Your task to perform on an android device: Empty the shopping cart on target. Add "jbl charge 4" to the cart on target, then select checkout. Image 0: 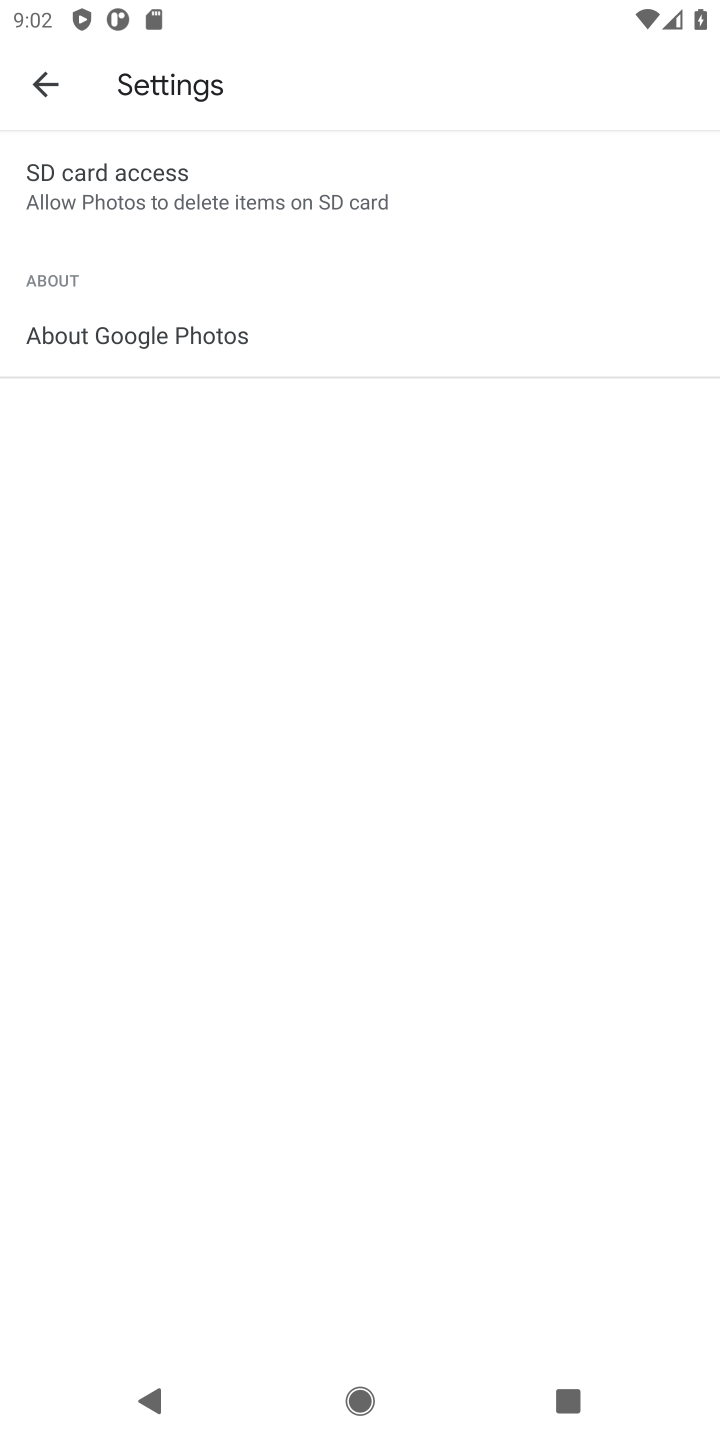
Step 0: press home button
Your task to perform on an android device: Empty the shopping cart on target. Add "jbl charge 4" to the cart on target, then select checkout. Image 1: 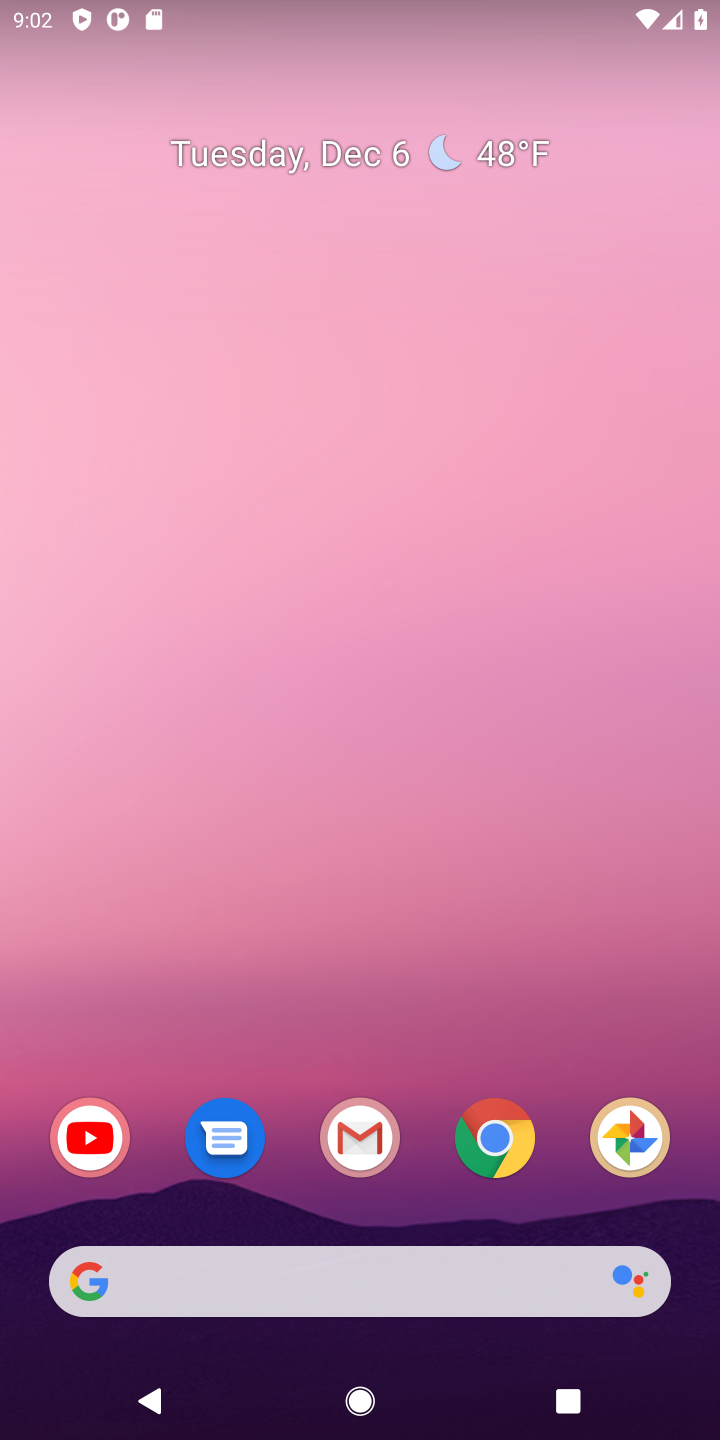
Step 1: click (494, 1148)
Your task to perform on an android device: Empty the shopping cart on target. Add "jbl charge 4" to the cart on target, then select checkout. Image 2: 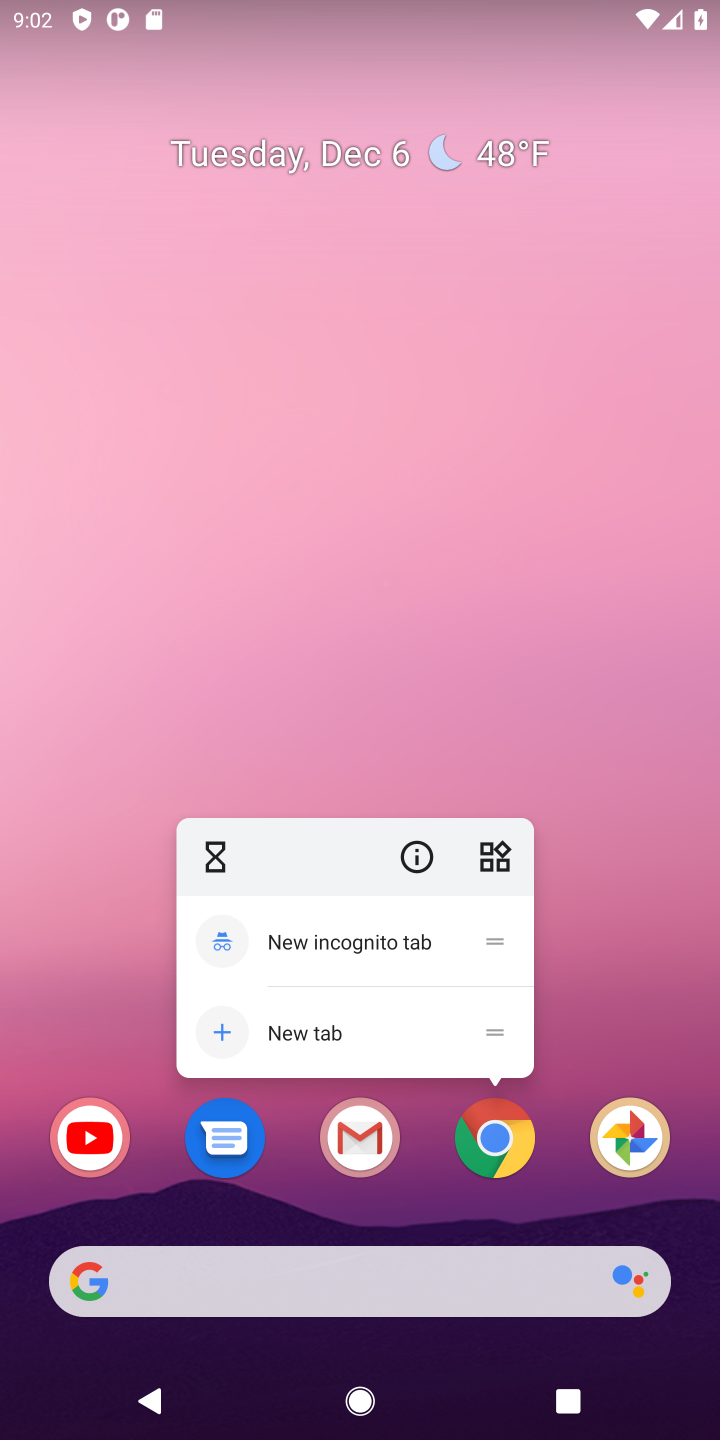
Step 2: click (494, 1159)
Your task to perform on an android device: Empty the shopping cart on target. Add "jbl charge 4" to the cart on target, then select checkout. Image 3: 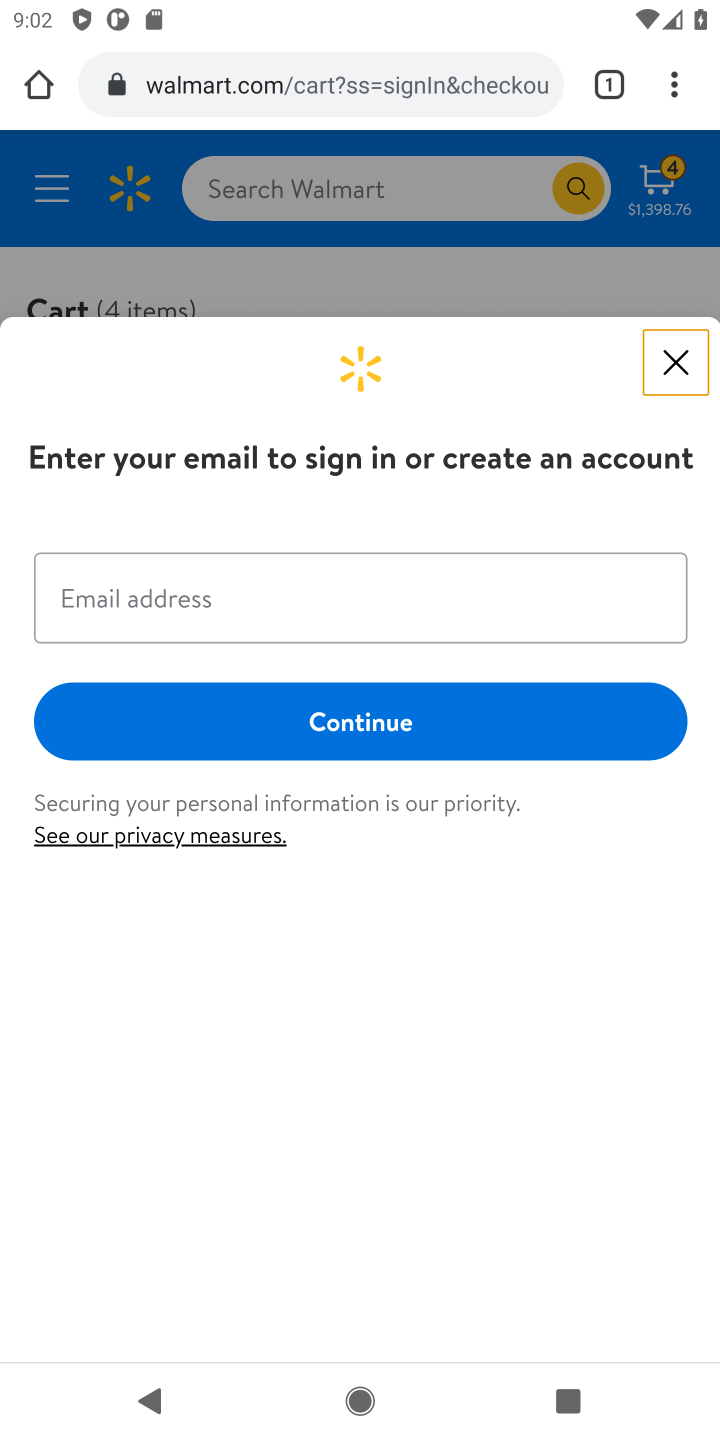
Step 3: click (309, 90)
Your task to perform on an android device: Empty the shopping cart on target. Add "jbl charge 4" to the cart on target, then select checkout. Image 4: 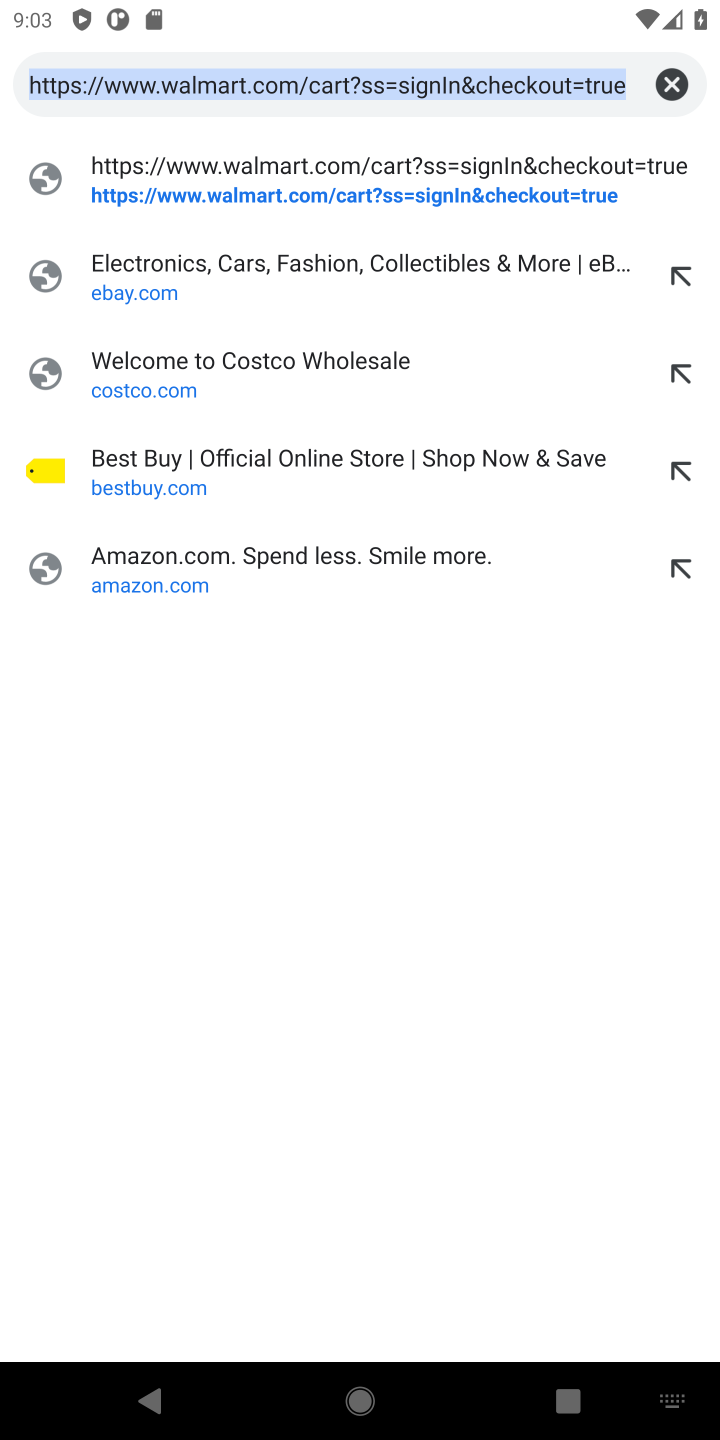
Step 4: type "target.com"
Your task to perform on an android device: Empty the shopping cart on target. Add "jbl charge 4" to the cart on target, then select checkout. Image 5: 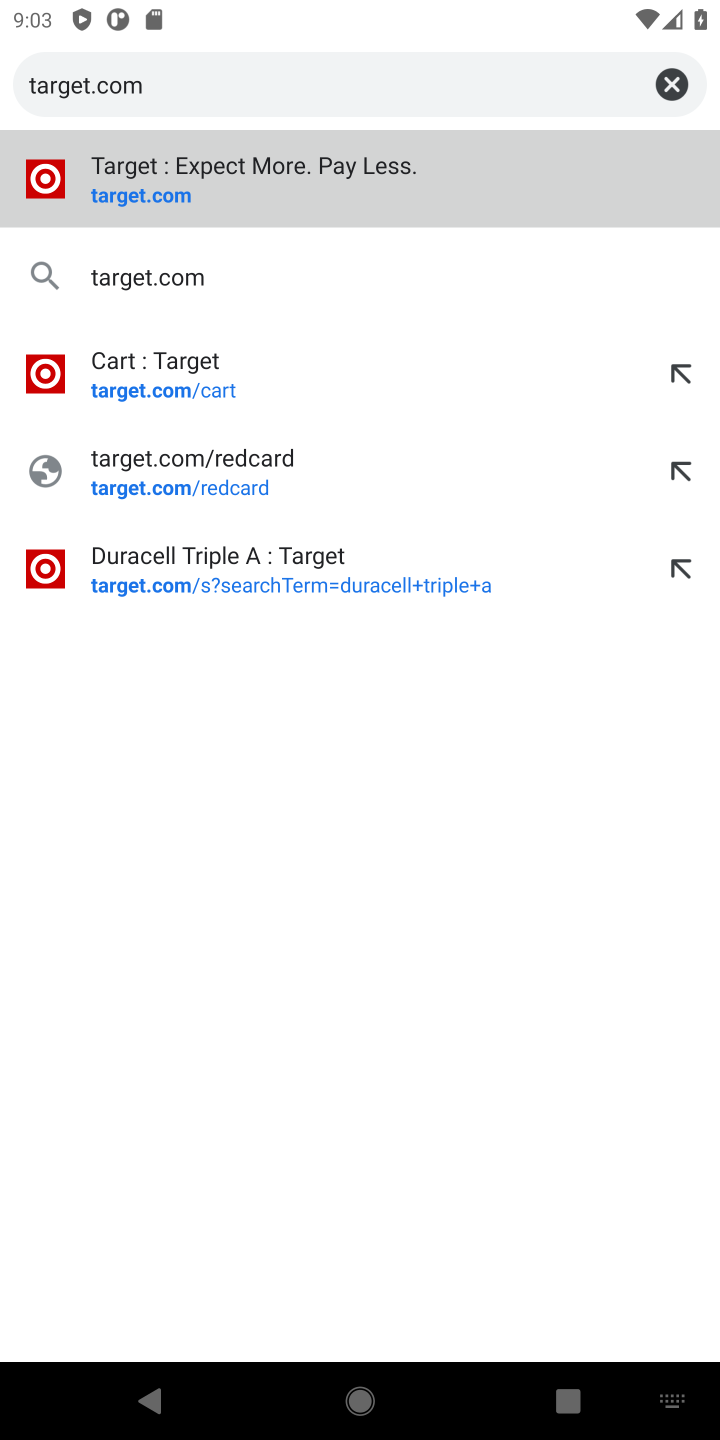
Step 5: click (173, 183)
Your task to perform on an android device: Empty the shopping cart on target. Add "jbl charge 4" to the cart on target, then select checkout. Image 6: 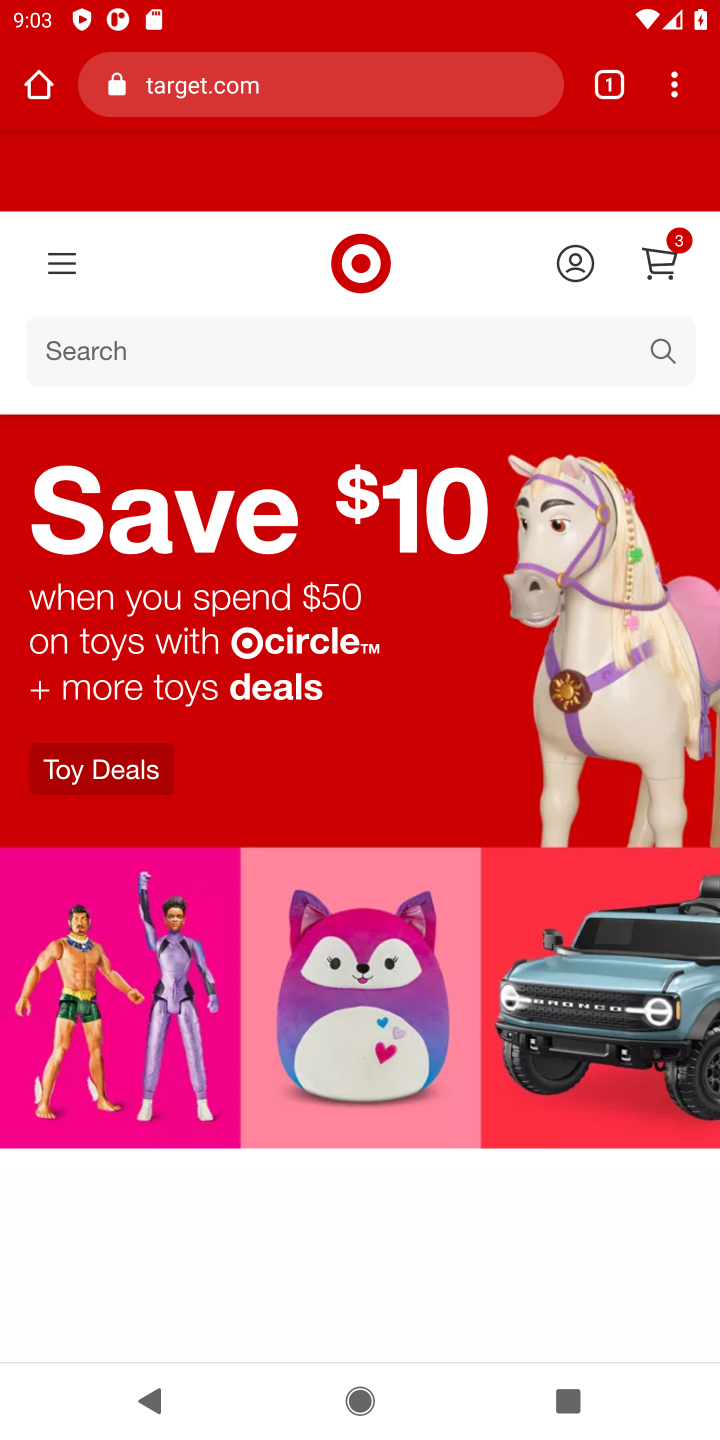
Step 6: click (646, 263)
Your task to perform on an android device: Empty the shopping cart on target. Add "jbl charge 4" to the cart on target, then select checkout. Image 7: 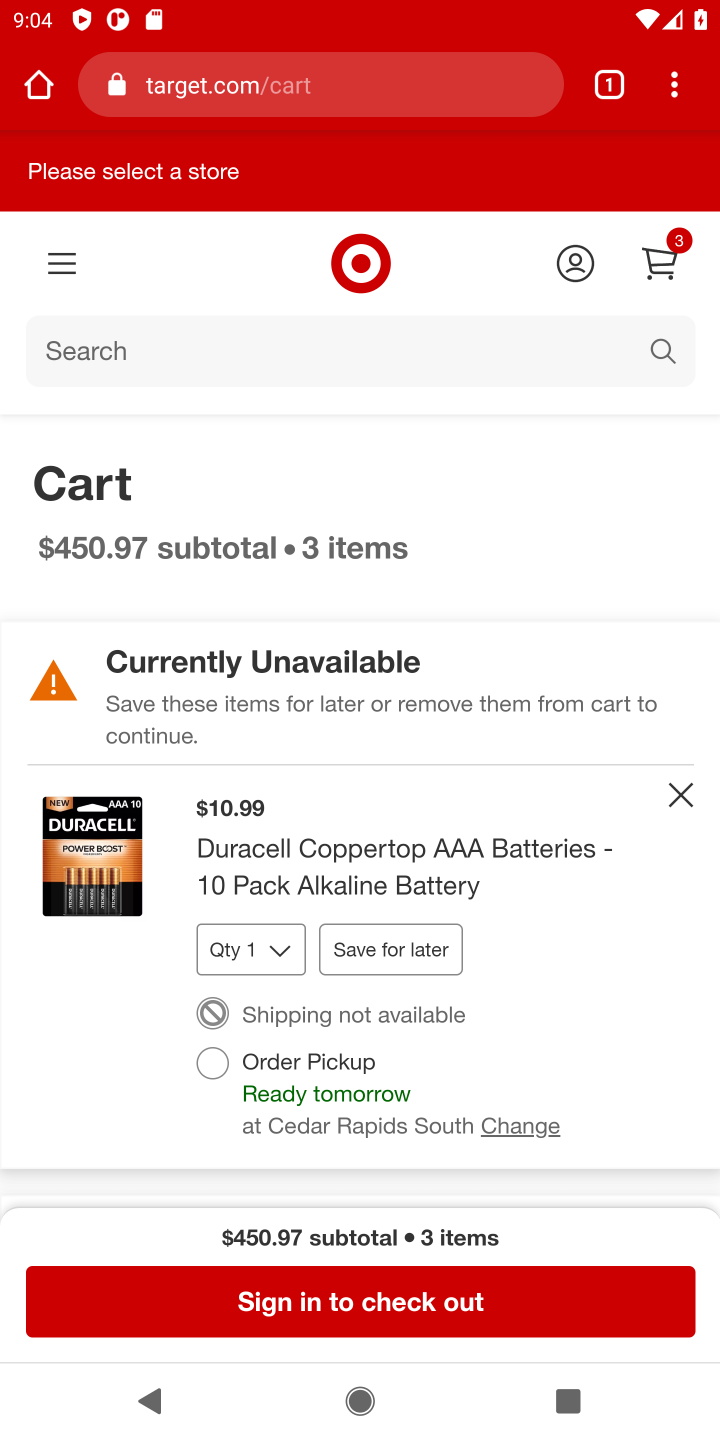
Step 7: click (682, 807)
Your task to perform on an android device: Empty the shopping cart on target. Add "jbl charge 4" to the cart on target, then select checkout. Image 8: 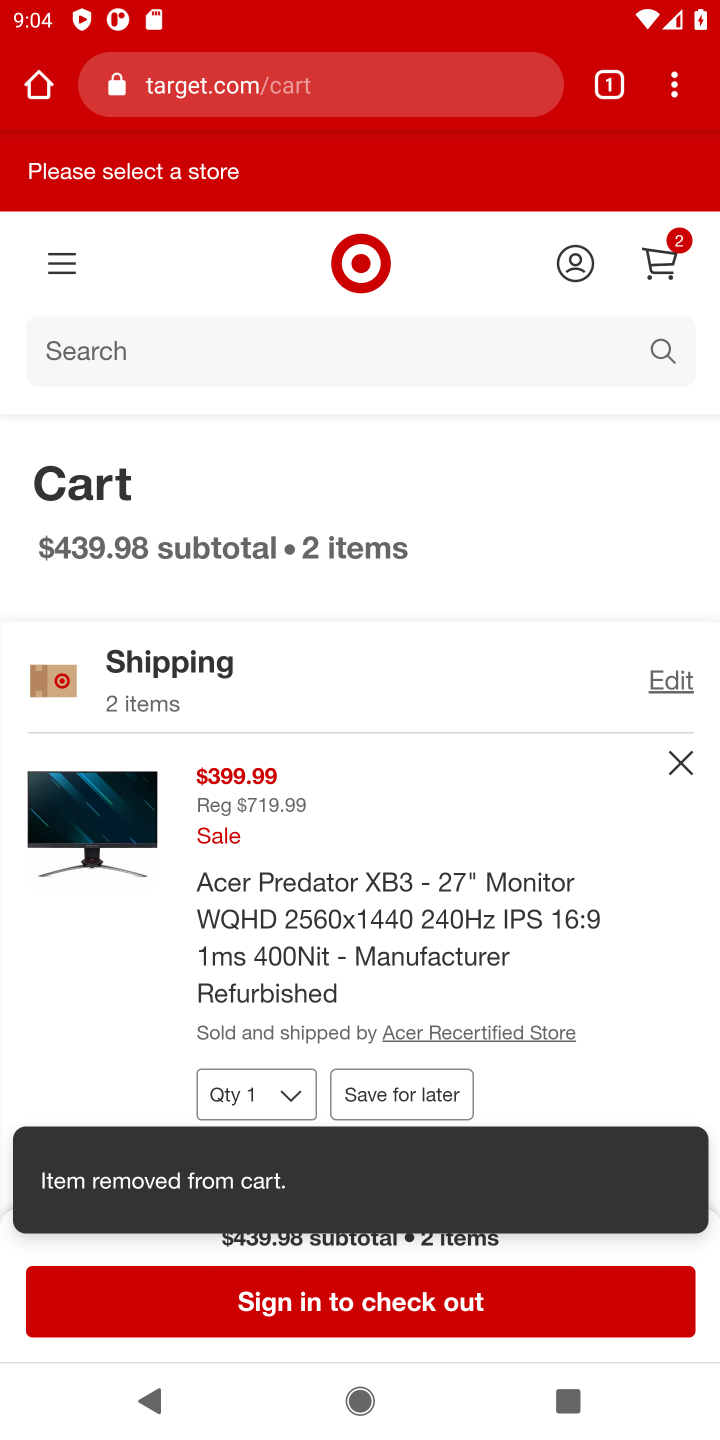
Step 8: click (682, 758)
Your task to perform on an android device: Empty the shopping cart on target. Add "jbl charge 4" to the cart on target, then select checkout. Image 9: 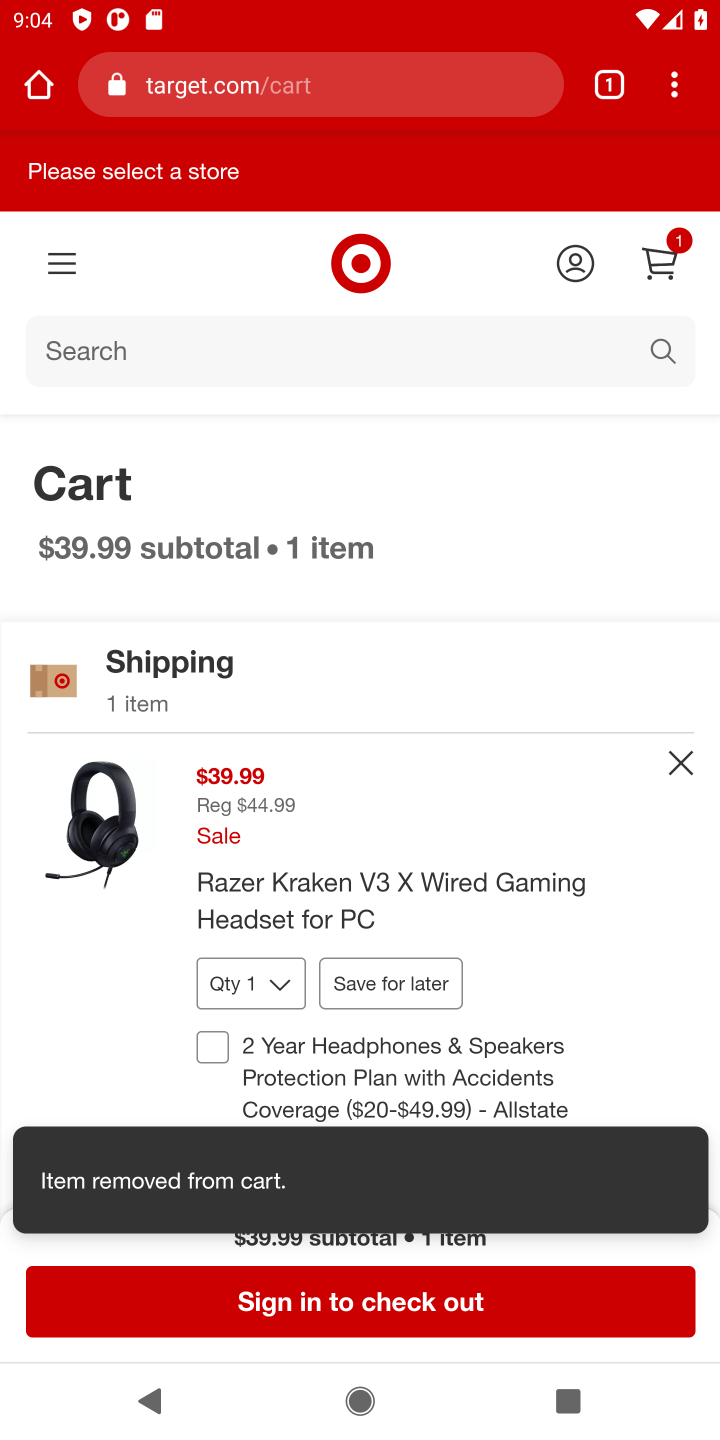
Step 9: click (682, 768)
Your task to perform on an android device: Empty the shopping cart on target. Add "jbl charge 4" to the cart on target, then select checkout. Image 10: 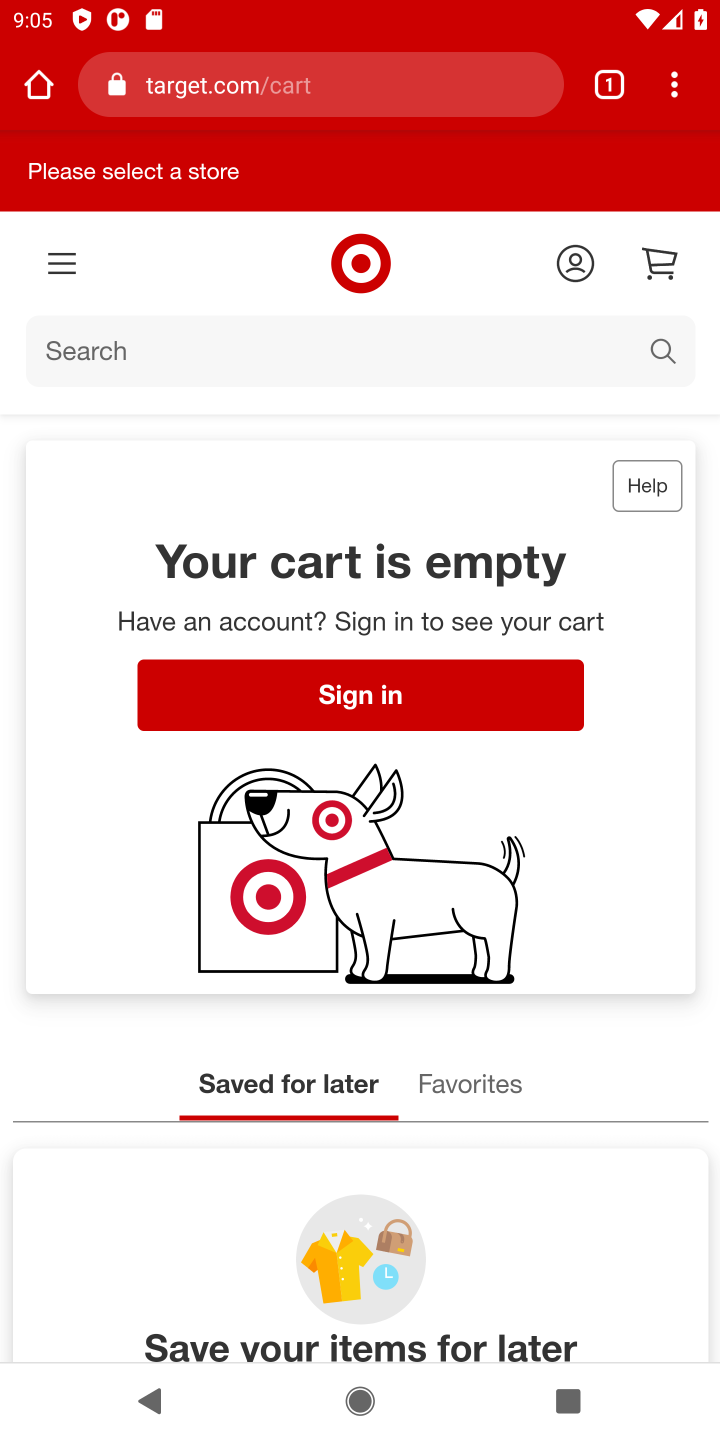
Step 10: click (96, 376)
Your task to perform on an android device: Empty the shopping cart on target. Add "jbl charge 4" to the cart on target, then select checkout. Image 11: 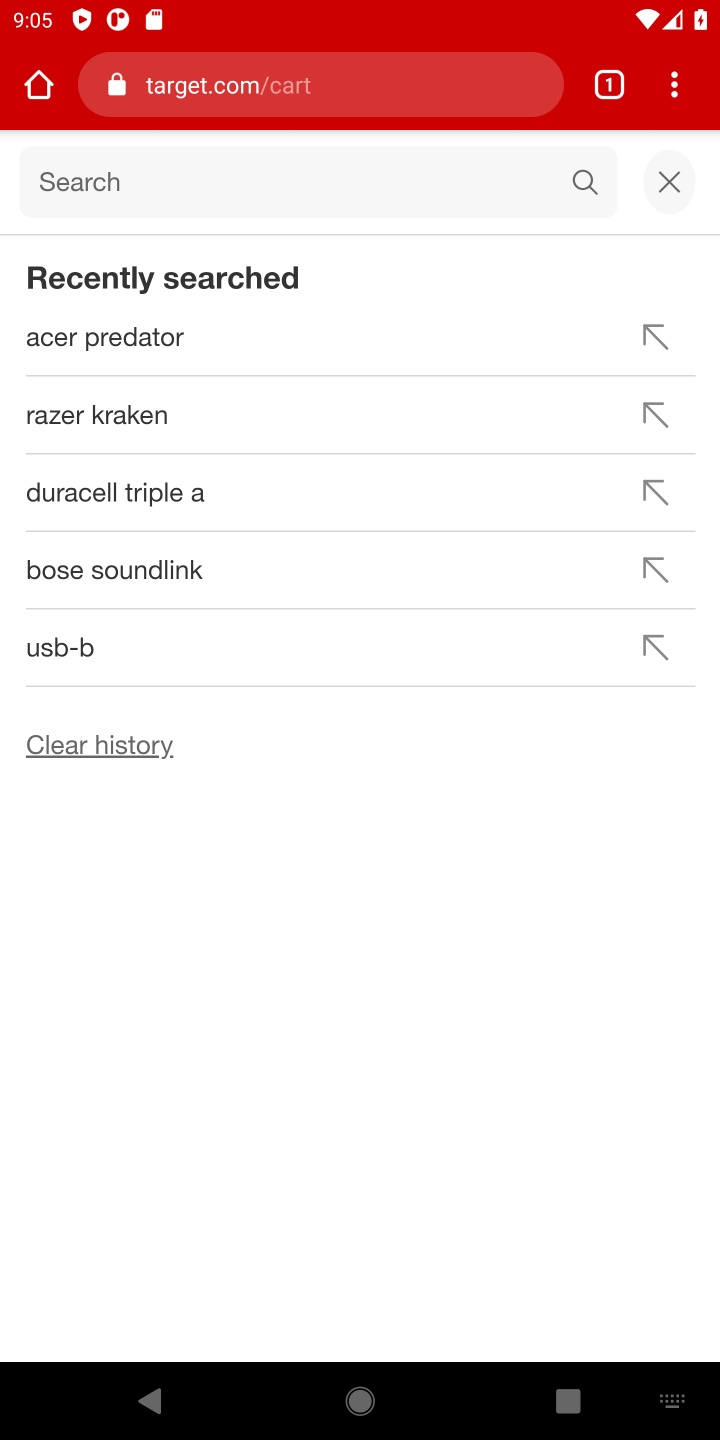
Step 11: type "jbl charge 4"
Your task to perform on an android device: Empty the shopping cart on target. Add "jbl charge 4" to the cart on target, then select checkout. Image 12: 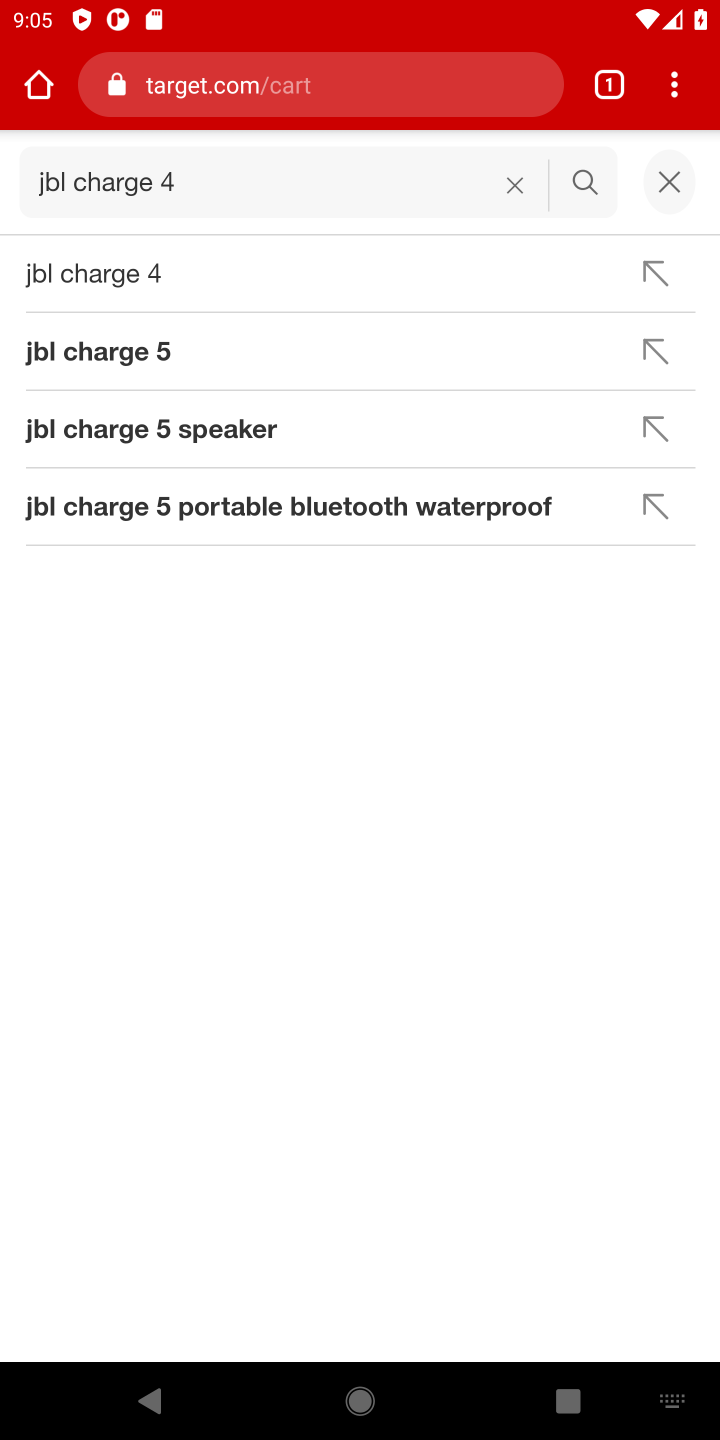
Step 12: click (155, 276)
Your task to perform on an android device: Empty the shopping cart on target. Add "jbl charge 4" to the cart on target, then select checkout. Image 13: 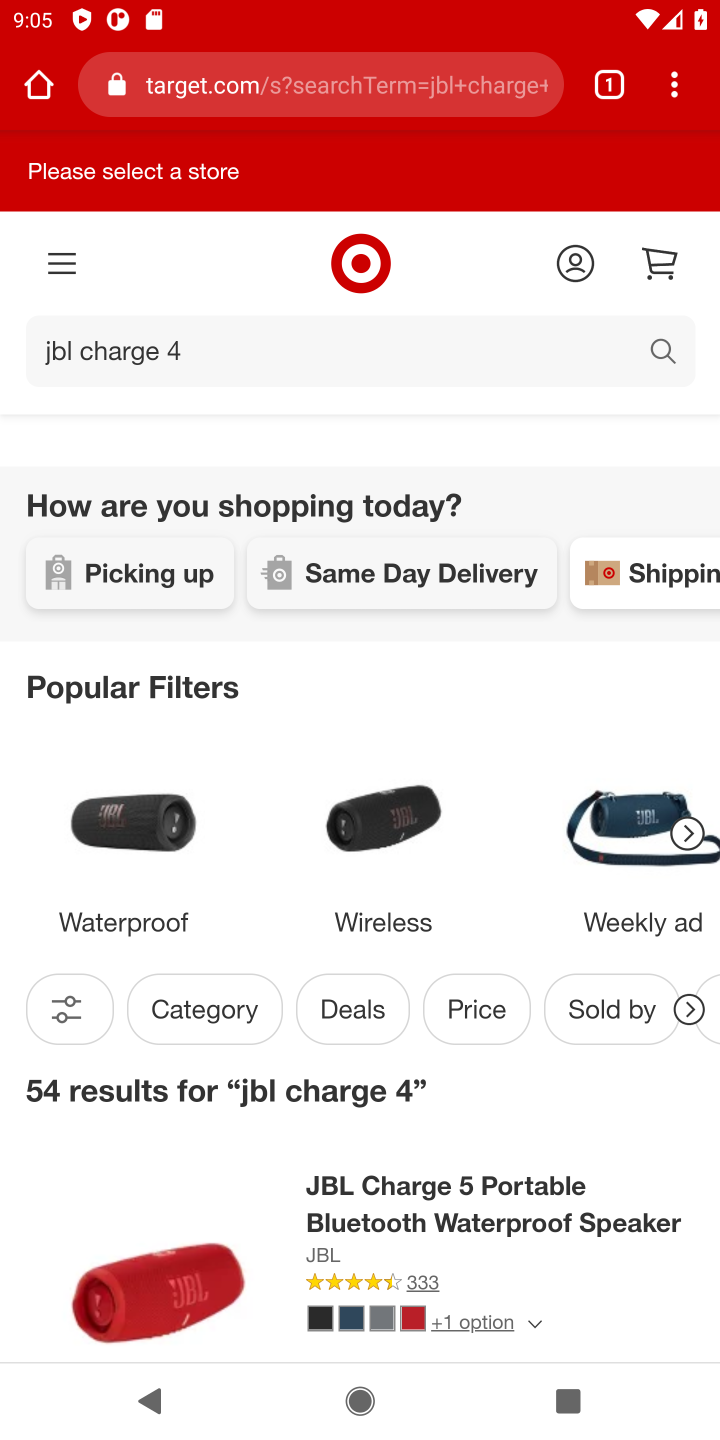
Step 13: task complete